Your task to perform on an android device: toggle show notifications on the lock screen Image 0: 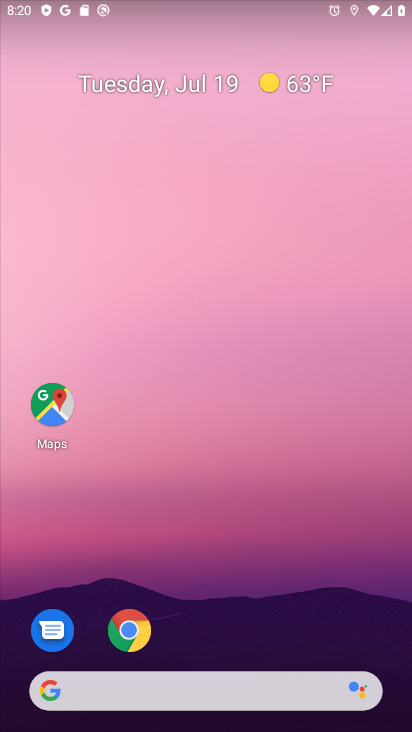
Step 0: drag from (295, 612) to (247, 86)
Your task to perform on an android device: toggle show notifications on the lock screen Image 1: 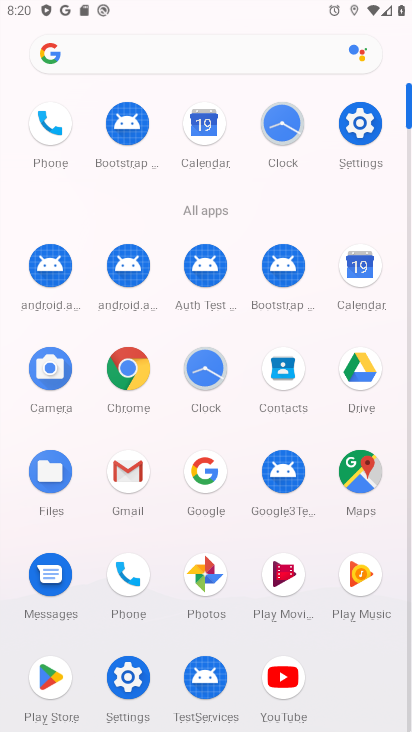
Step 1: click (368, 104)
Your task to perform on an android device: toggle show notifications on the lock screen Image 2: 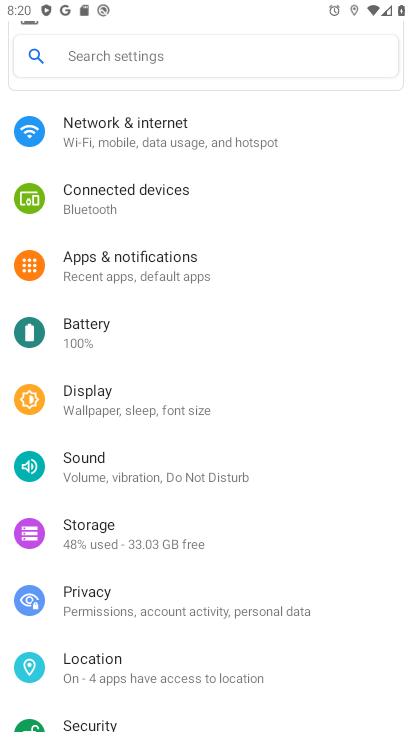
Step 2: click (132, 285)
Your task to perform on an android device: toggle show notifications on the lock screen Image 3: 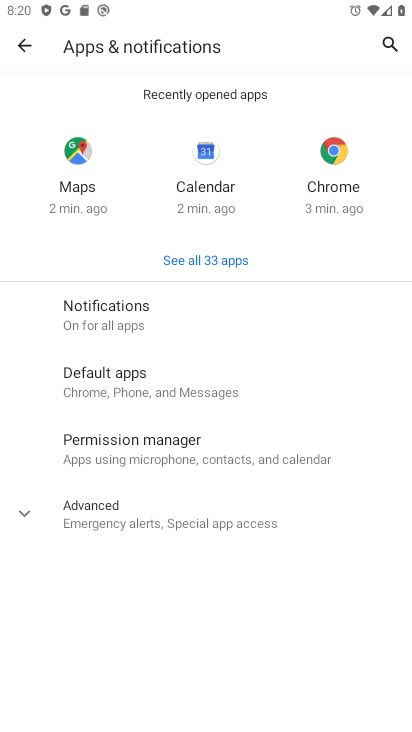
Step 3: click (133, 304)
Your task to perform on an android device: toggle show notifications on the lock screen Image 4: 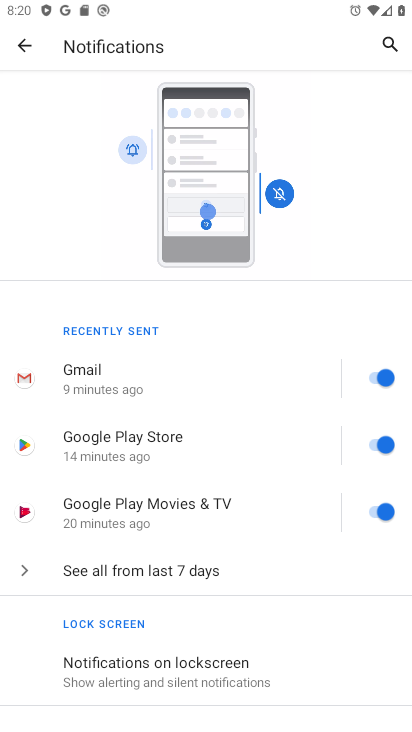
Step 4: click (231, 675)
Your task to perform on an android device: toggle show notifications on the lock screen Image 5: 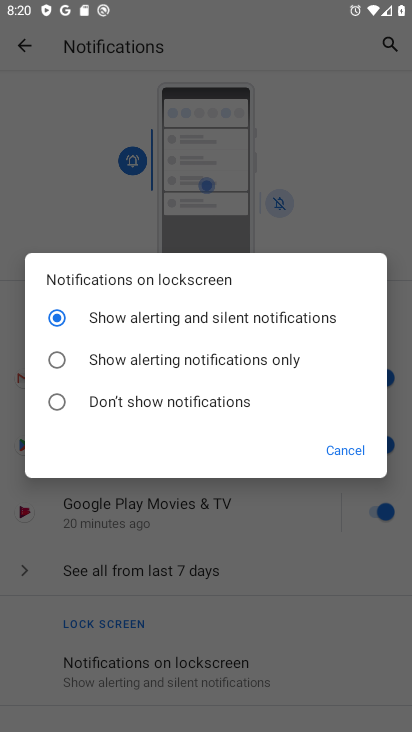
Step 5: click (207, 363)
Your task to perform on an android device: toggle show notifications on the lock screen Image 6: 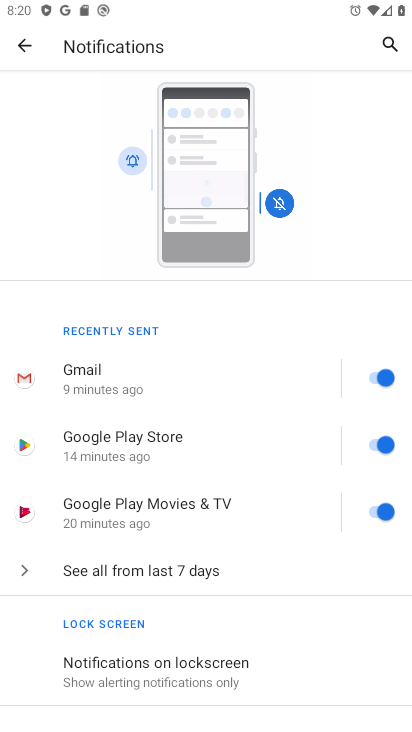
Step 6: task complete